Your task to perform on an android device: When is my next meeting? Image 0: 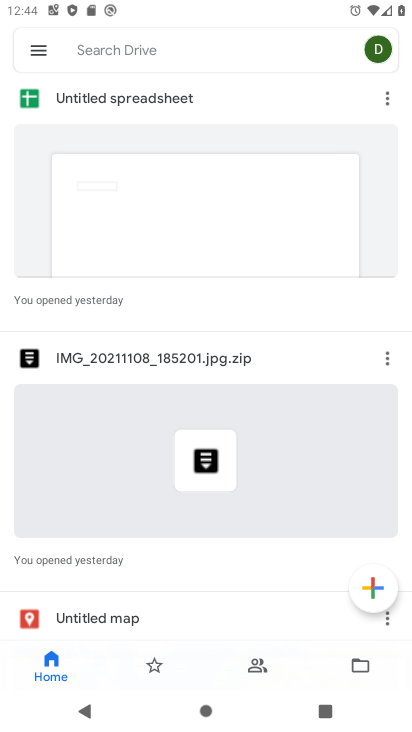
Step 0: press home button
Your task to perform on an android device: When is my next meeting? Image 1: 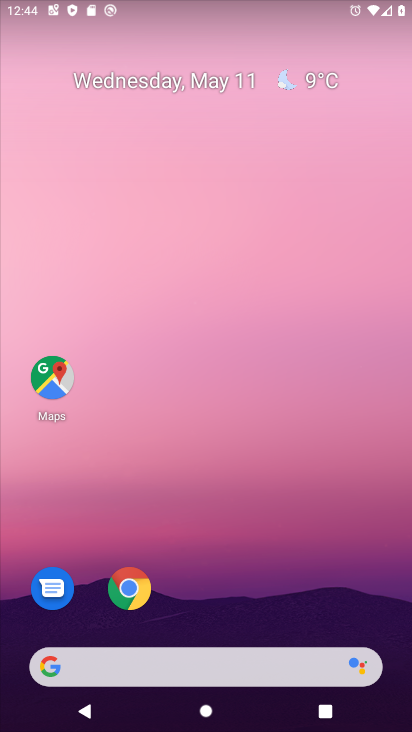
Step 1: drag from (314, 626) to (322, 47)
Your task to perform on an android device: When is my next meeting? Image 2: 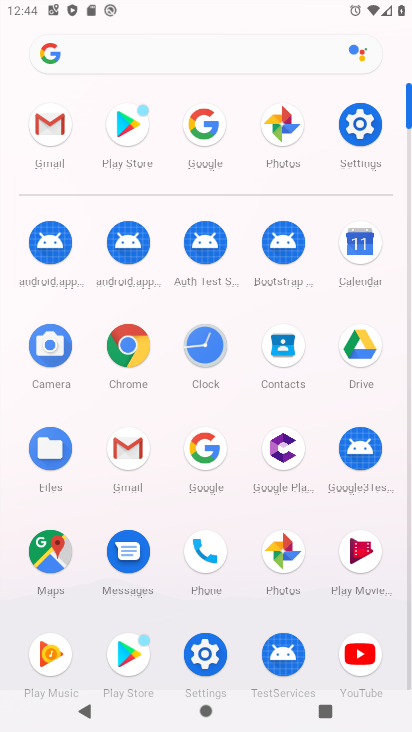
Step 2: click (353, 243)
Your task to perform on an android device: When is my next meeting? Image 3: 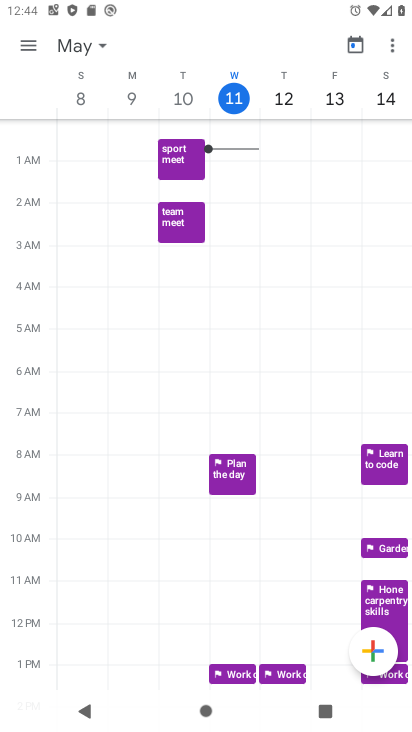
Step 3: click (23, 46)
Your task to perform on an android device: When is my next meeting? Image 4: 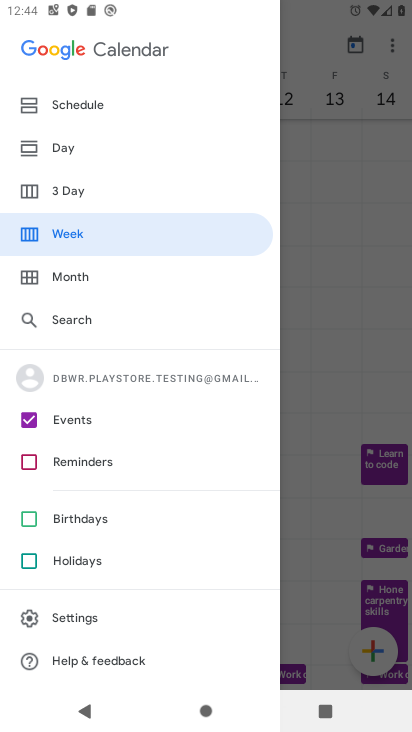
Step 4: click (45, 106)
Your task to perform on an android device: When is my next meeting? Image 5: 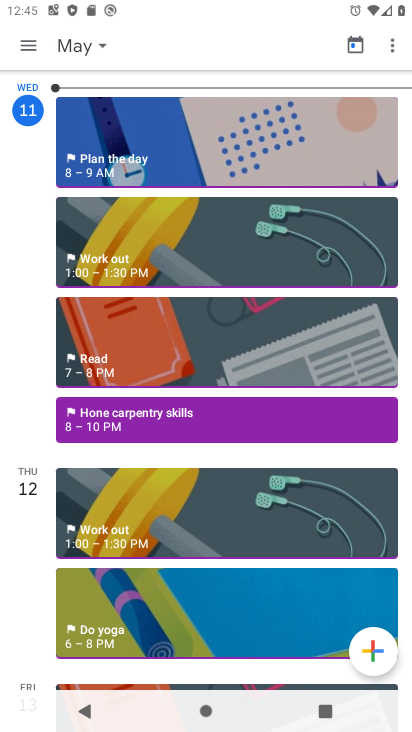
Step 5: click (134, 414)
Your task to perform on an android device: When is my next meeting? Image 6: 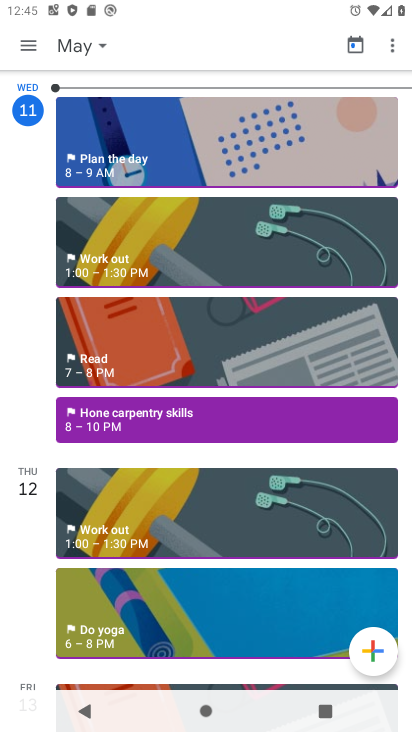
Step 6: click (183, 414)
Your task to perform on an android device: When is my next meeting? Image 7: 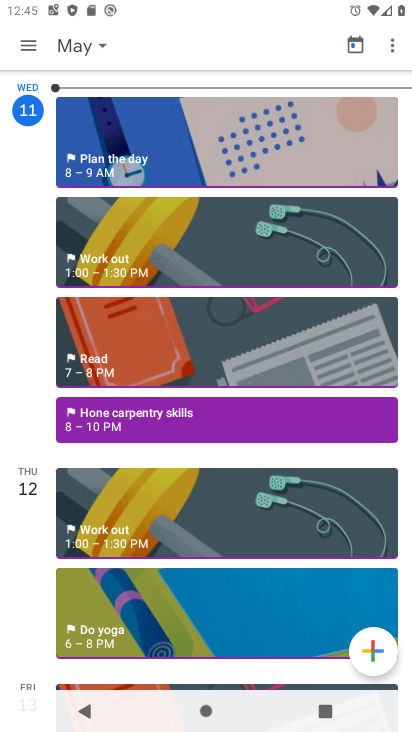
Step 7: click (141, 413)
Your task to perform on an android device: When is my next meeting? Image 8: 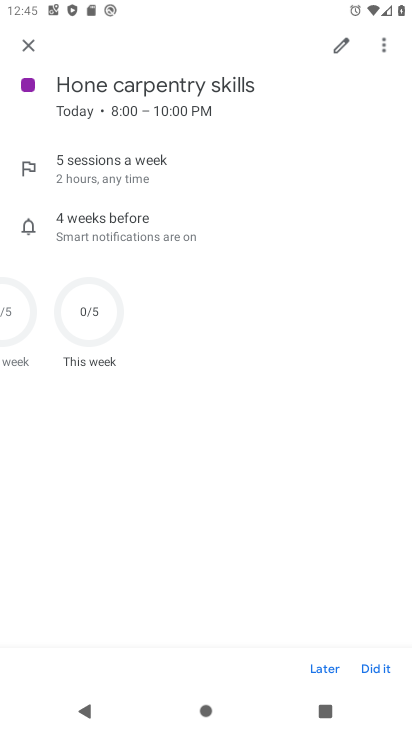
Step 8: task complete